Your task to perform on an android device: turn off improve location accuracy Image 0: 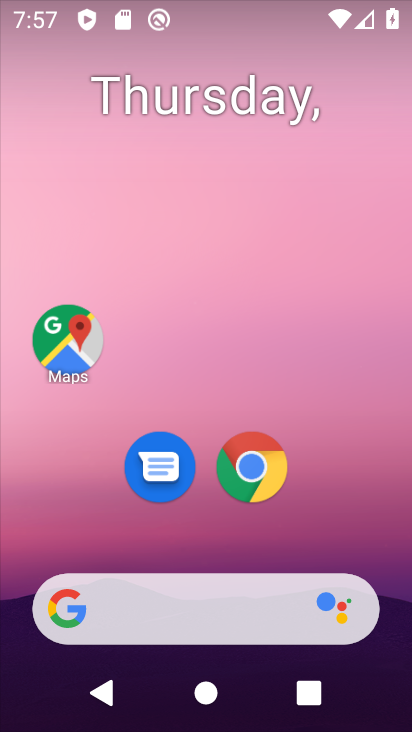
Step 0: drag from (215, 546) to (304, 130)
Your task to perform on an android device: turn off improve location accuracy Image 1: 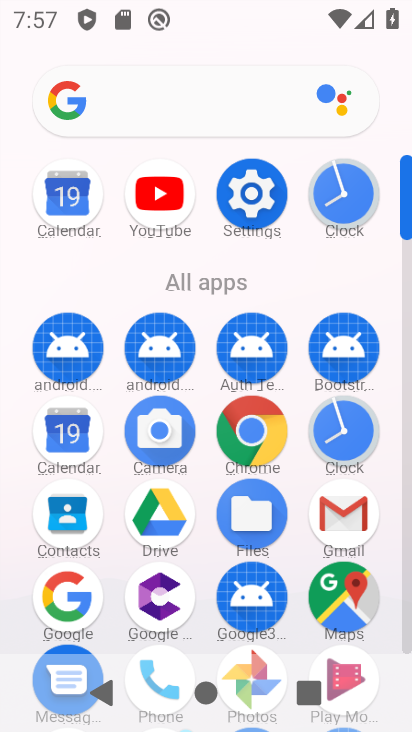
Step 1: click (271, 188)
Your task to perform on an android device: turn off improve location accuracy Image 2: 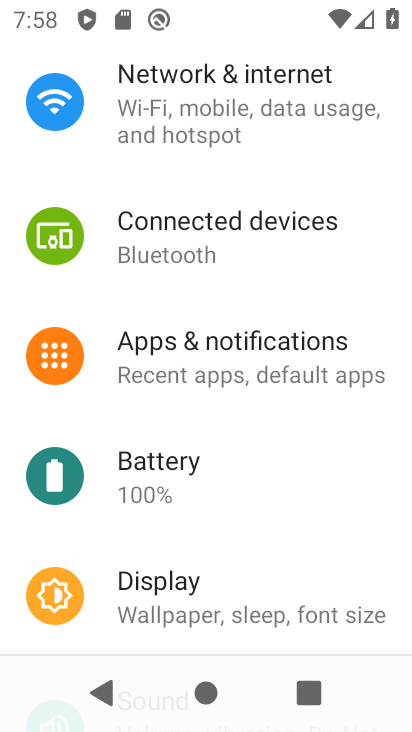
Step 2: drag from (230, 506) to (329, 61)
Your task to perform on an android device: turn off improve location accuracy Image 3: 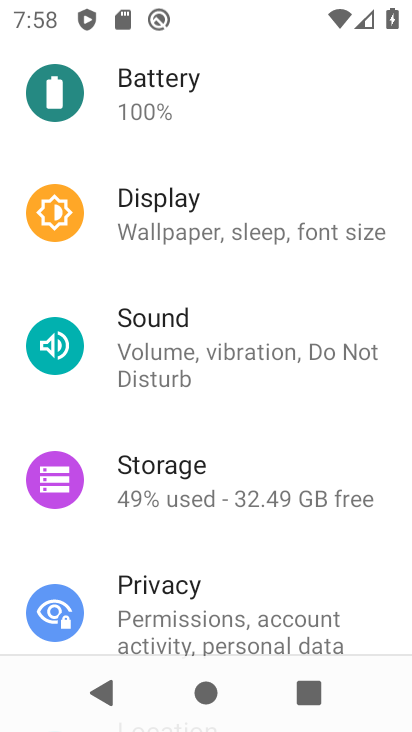
Step 3: drag from (209, 533) to (295, 147)
Your task to perform on an android device: turn off improve location accuracy Image 4: 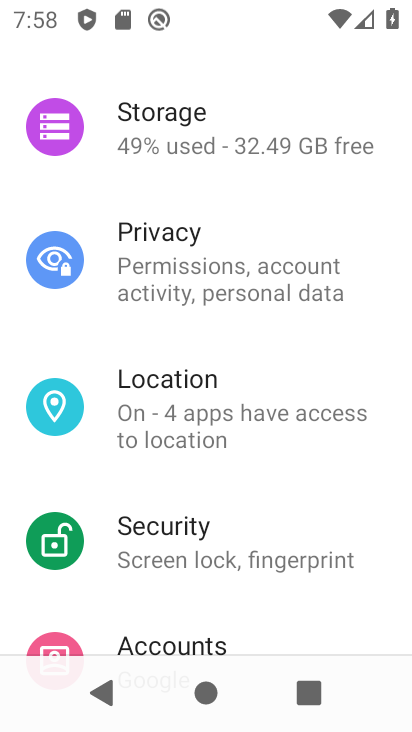
Step 4: click (182, 388)
Your task to perform on an android device: turn off improve location accuracy Image 5: 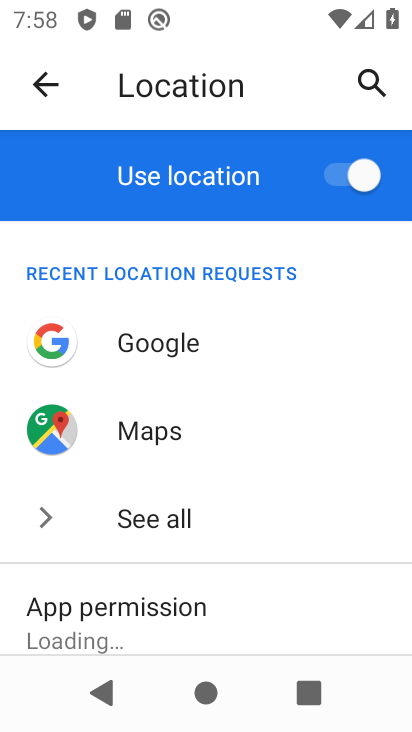
Step 5: drag from (165, 628) to (250, 242)
Your task to perform on an android device: turn off improve location accuracy Image 6: 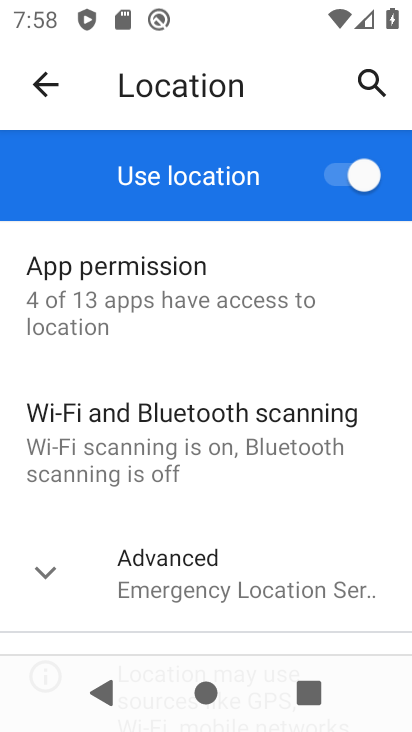
Step 6: click (225, 573)
Your task to perform on an android device: turn off improve location accuracy Image 7: 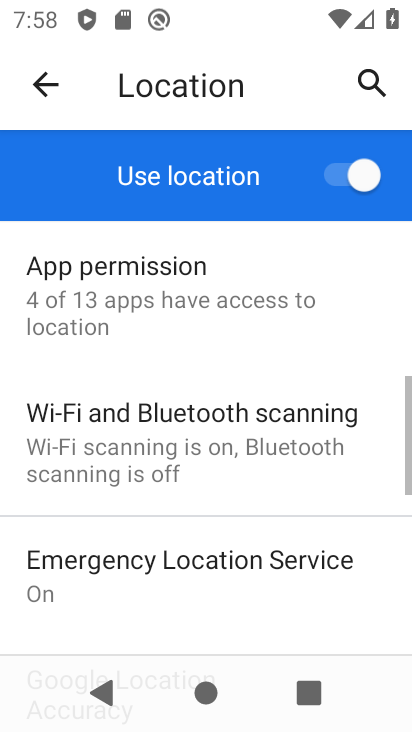
Step 7: drag from (179, 601) to (236, 299)
Your task to perform on an android device: turn off improve location accuracy Image 8: 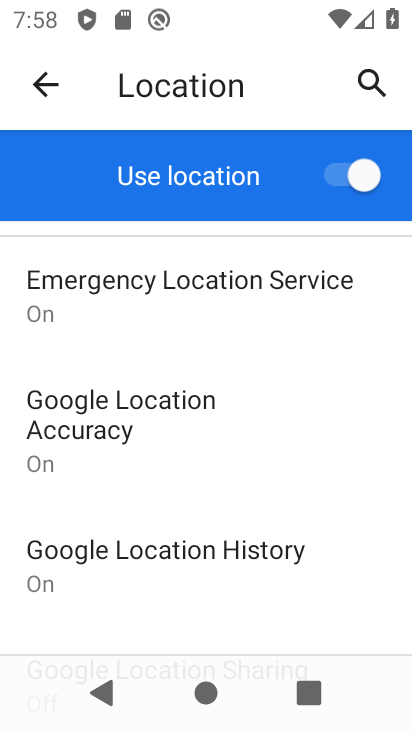
Step 8: click (126, 412)
Your task to perform on an android device: turn off improve location accuracy Image 9: 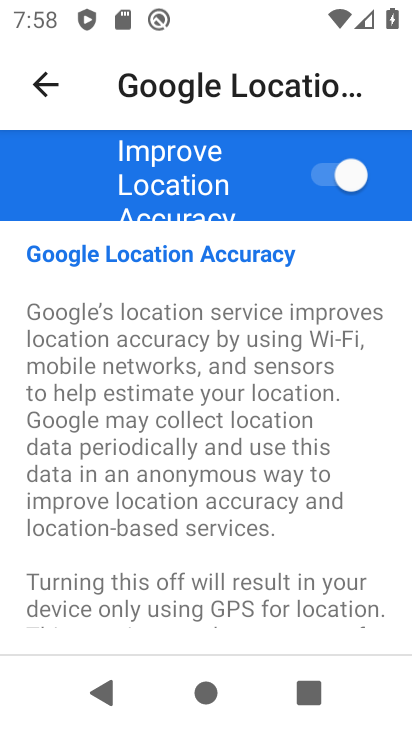
Step 9: click (343, 174)
Your task to perform on an android device: turn off improve location accuracy Image 10: 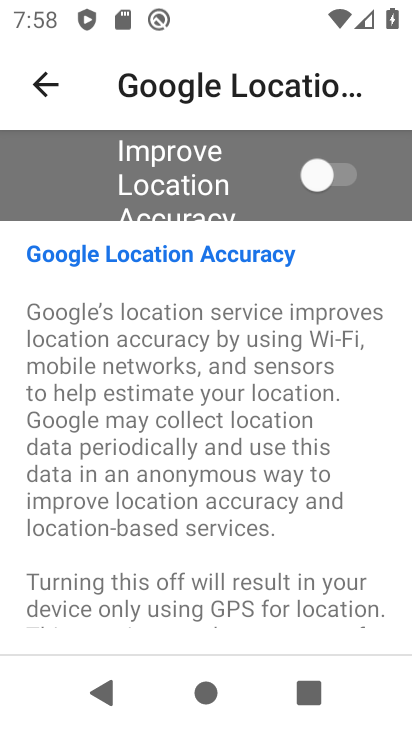
Step 10: task complete